Your task to perform on an android device: turn off location history Image 0: 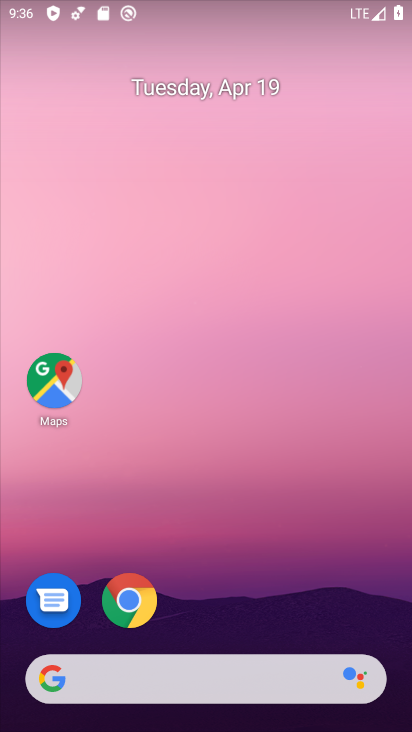
Step 0: drag from (320, 296) to (283, 204)
Your task to perform on an android device: turn off location history Image 1: 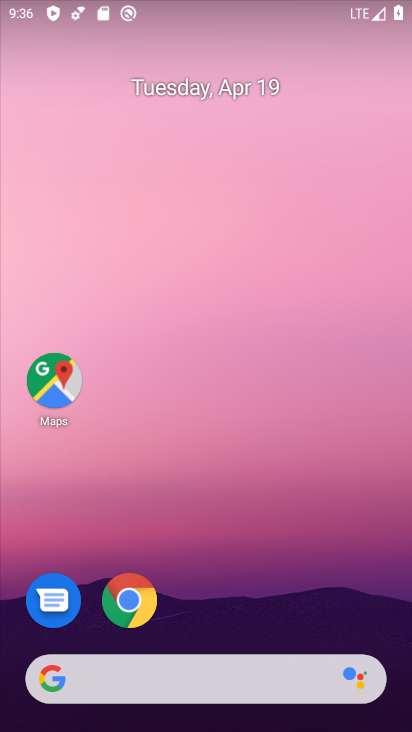
Step 1: click (54, 379)
Your task to perform on an android device: turn off location history Image 2: 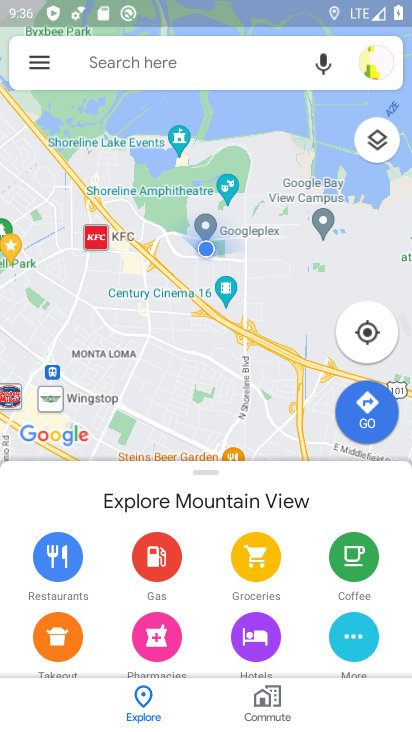
Step 2: click (30, 67)
Your task to perform on an android device: turn off location history Image 3: 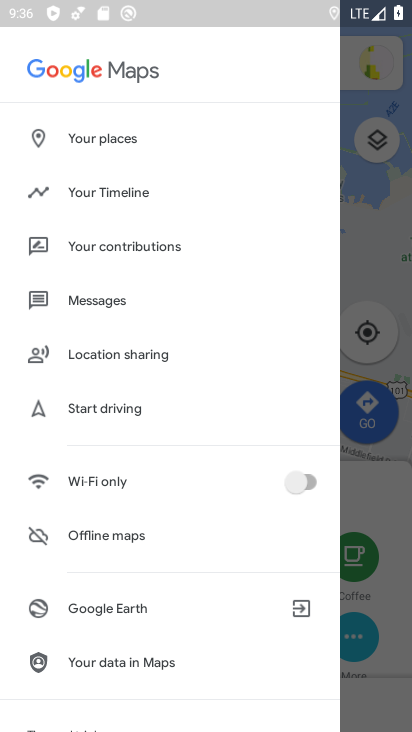
Step 3: click (148, 195)
Your task to perform on an android device: turn off location history Image 4: 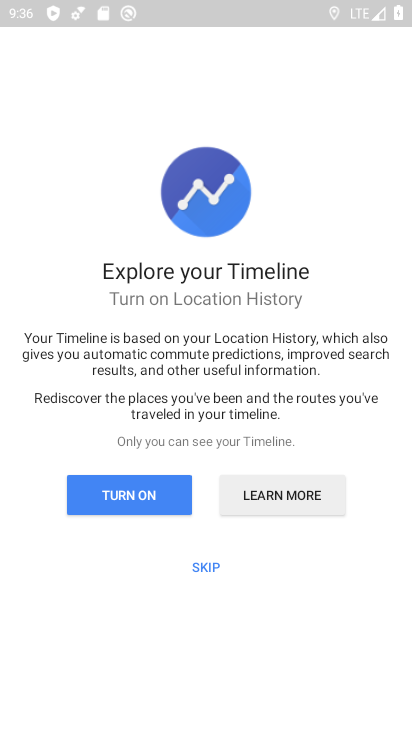
Step 4: click (211, 566)
Your task to perform on an android device: turn off location history Image 5: 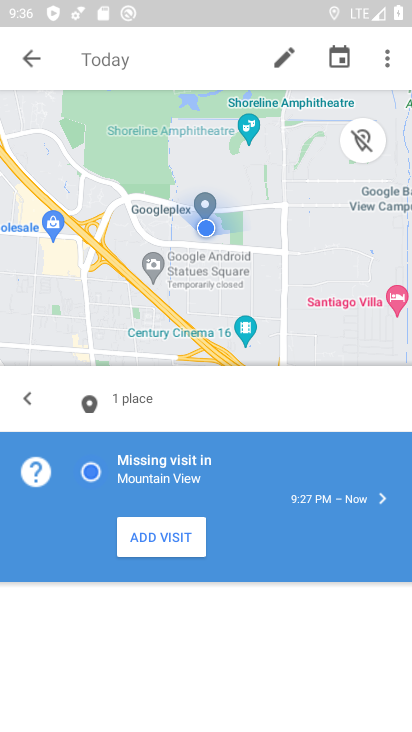
Step 5: click (386, 73)
Your task to perform on an android device: turn off location history Image 6: 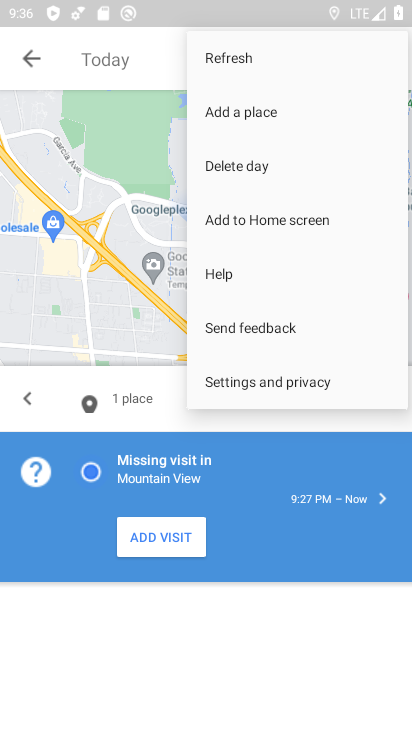
Step 6: click (339, 400)
Your task to perform on an android device: turn off location history Image 7: 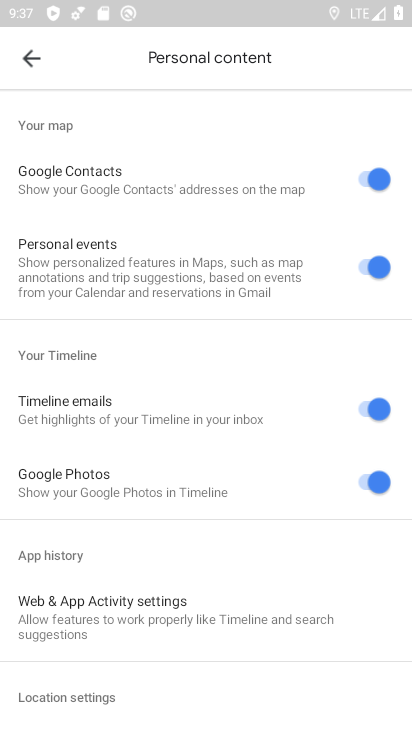
Step 7: drag from (280, 561) to (251, 134)
Your task to perform on an android device: turn off location history Image 8: 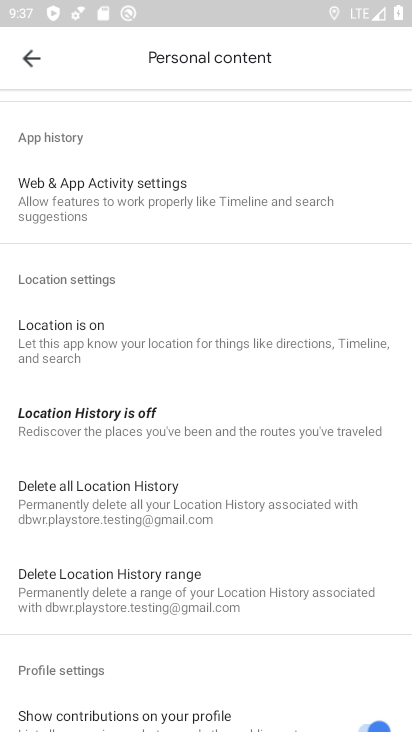
Step 8: drag from (317, 488) to (301, 340)
Your task to perform on an android device: turn off location history Image 9: 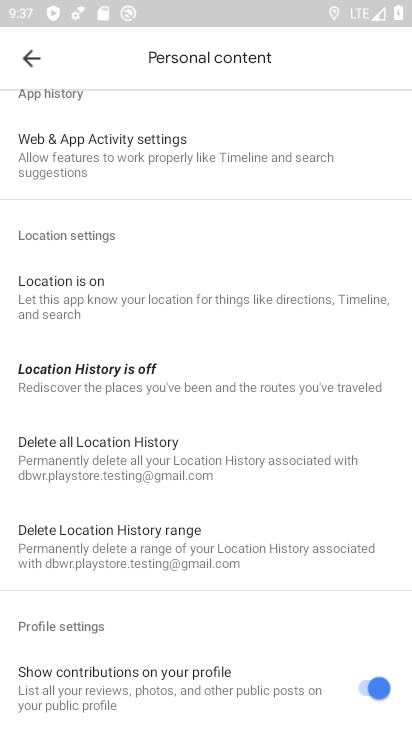
Step 9: click (298, 385)
Your task to perform on an android device: turn off location history Image 10: 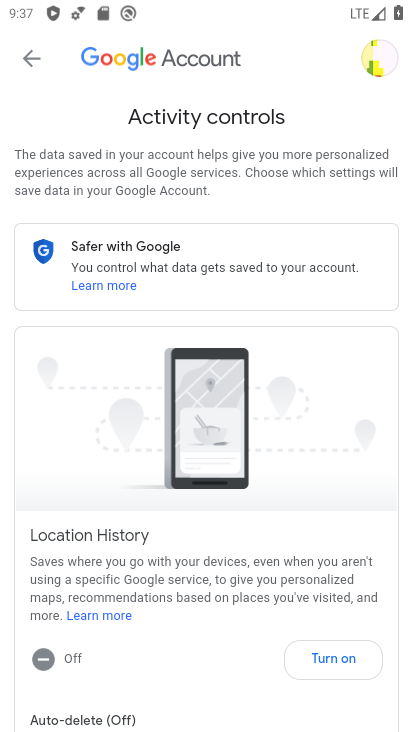
Step 10: task complete